Your task to perform on an android device: turn on showing notifications on the lock screen Image 0: 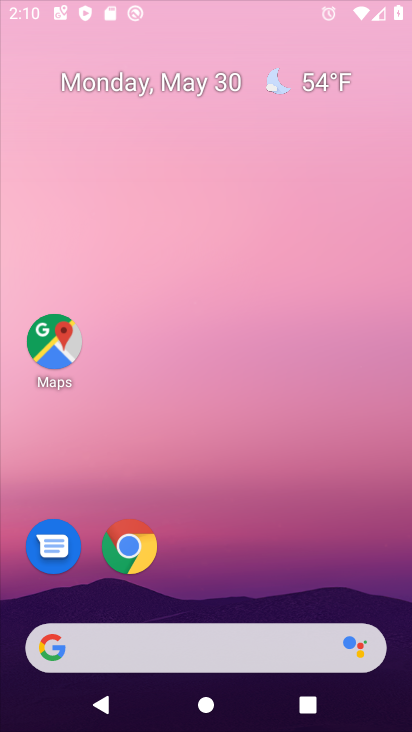
Step 0: press home button
Your task to perform on an android device: turn on showing notifications on the lock screen Image 1: 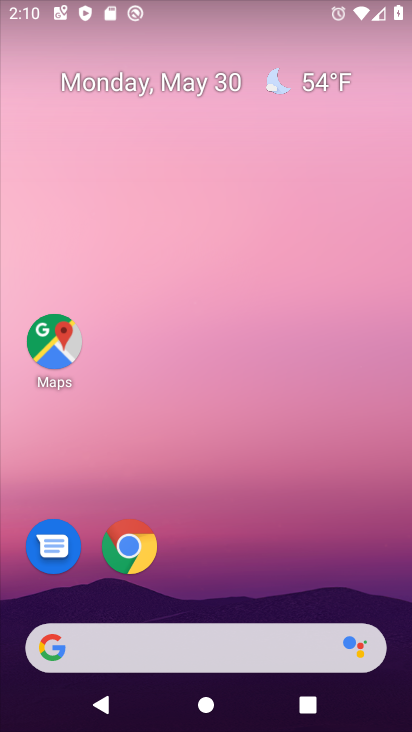
Step 1: drag from (246, 456) to (264, 143)
Your task to perform on an android device: turn on showing notifications on the lock screen Image 2: 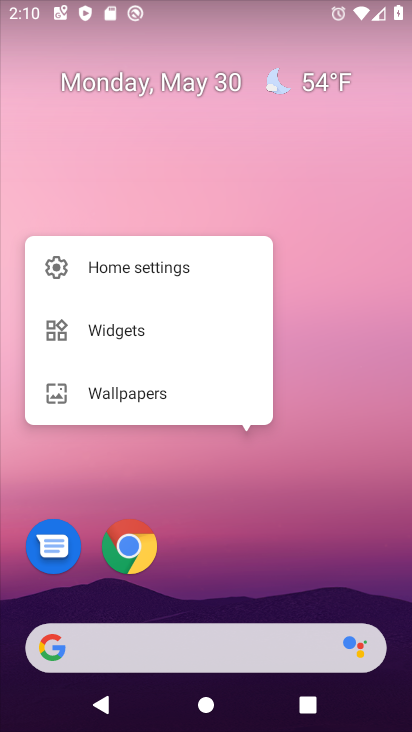
Step 2: click (295, 383)
Your task to perform on an android device: turn on showing notifications on the lock screen Image 3: 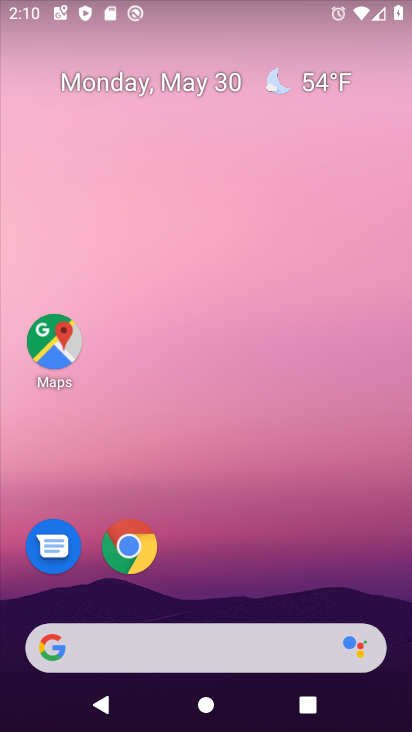
Step 3: drag from (240, 590) to (312, 77)
Your task to perform on an android device: turn on showing notifications on the lock screen Image 4: 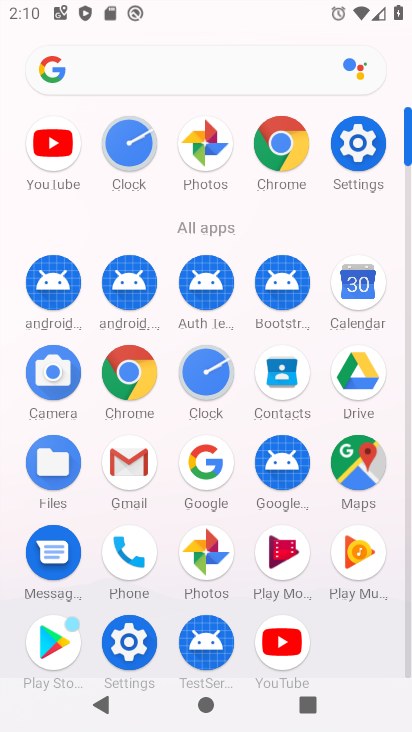
Step 4: click (358, 137)
Your task to perform on an android device: turn on showing notifications on the lock screen Image 5: 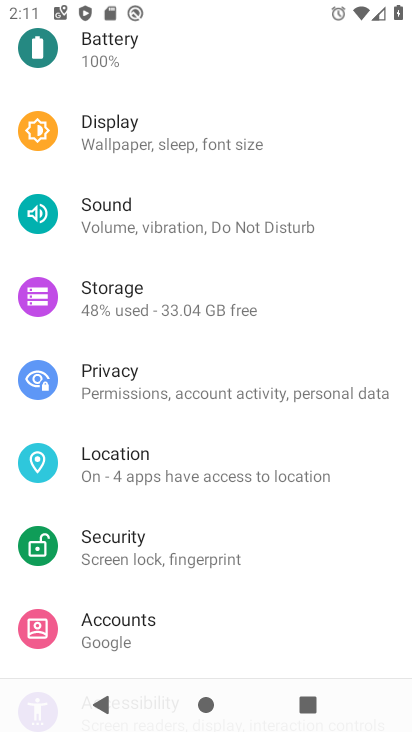
Step 5: drag from (170, 103) to (225, 564)
Your task to perform on an android device: turn on showing notifications on the lock screen Image 6: 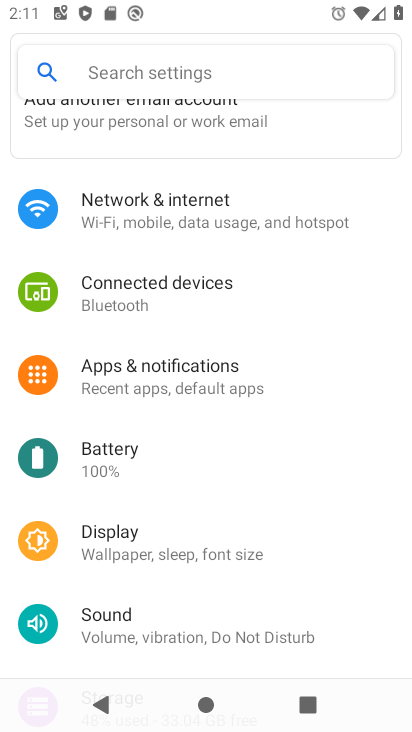
Step 6: click (250, 368)
Your task to perform on an android device: turn on showing notifications on the lock screen Image 7: 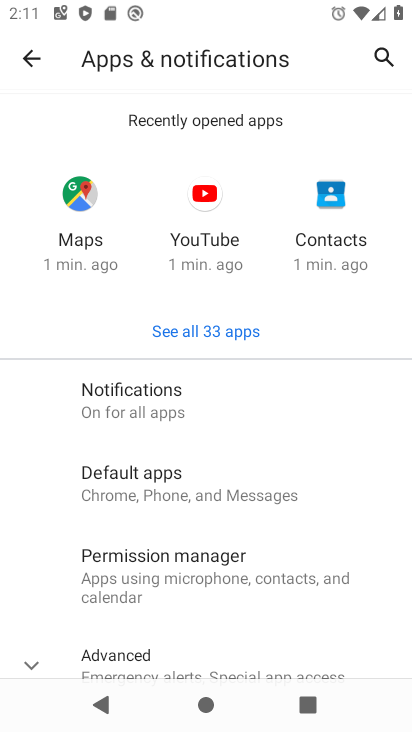
Step 7: click (208, 390)
Your task to perform on an android device: turn on showing notifications on the lock screen Image 8: 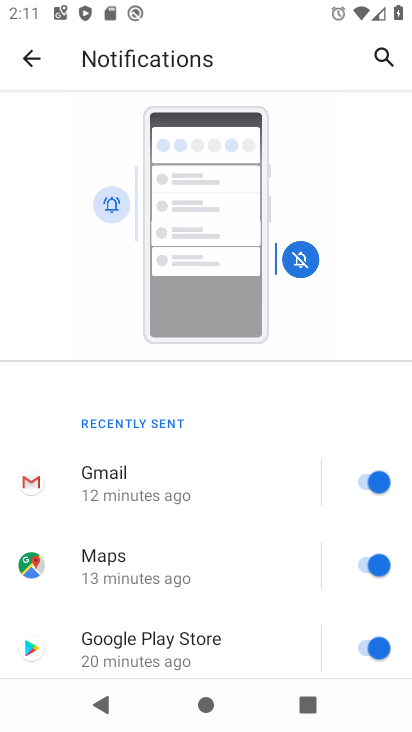
Step 8: drag from (218, 623) to (242, 263)
Your task to perform on an android device: turn on showing notifications on the lock screen Image 9: 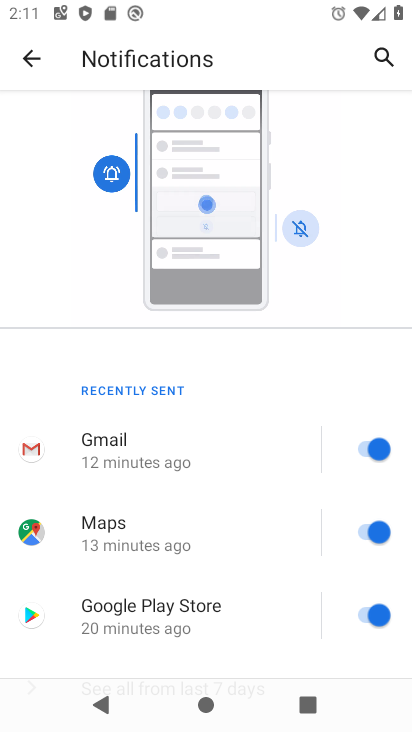
Step 9: drag from (217, 623) to (288, 255)
Your task to perform on an android device: turn on showing notifications on the lock screen Image 10: 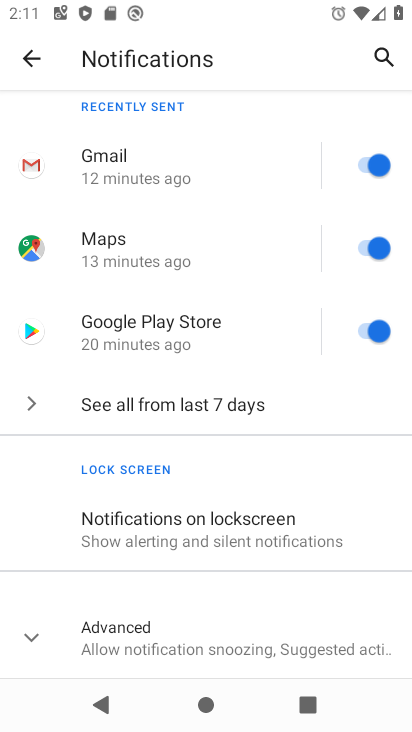
Step 10: drag from (213, 634) to (214, 144)
Your task to perform on an android device: turn on showing notifications on the lock screen Image 11: 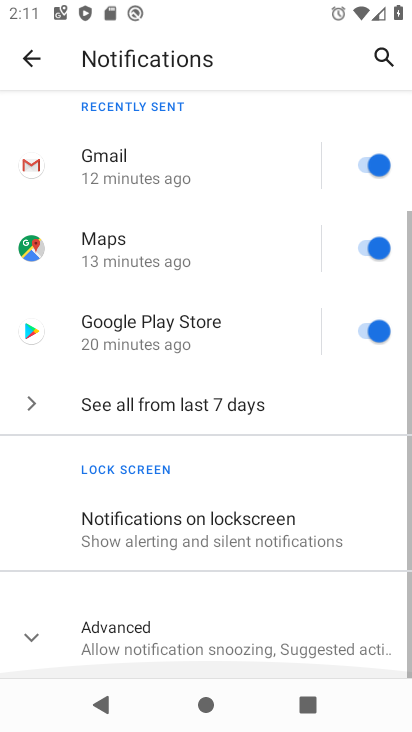
Step 11: click (250, 517)
Your task to perform on an android device: turn on showing notifications on the lock screen Image 12: 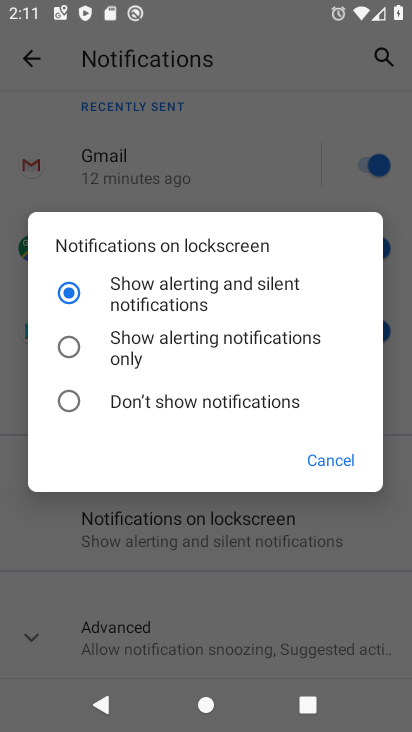
Step 12: click (175, 525)
Your task to perform on an android device: turn on showing notifications on the lock screen Image 13: 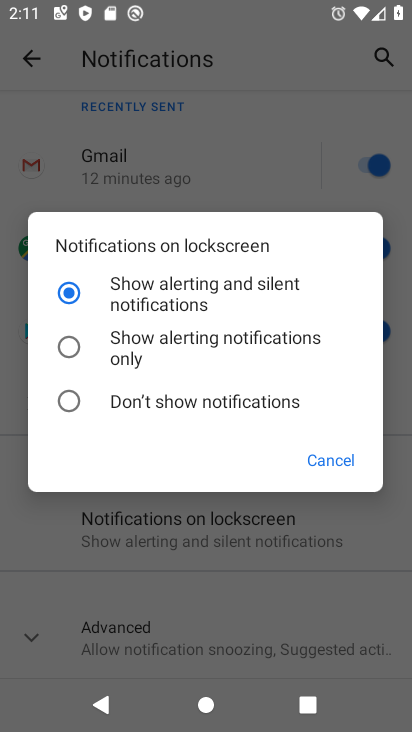
Step 13: click (73, 339)
Your task to perform on an android device: turn on showing notifications on the lock screen Image 14: 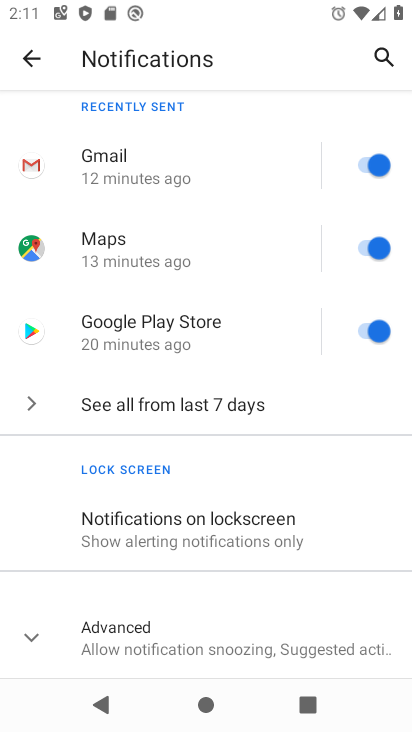
Step 14: task complete